Your task to perform on an android device: Check the news Image 0: 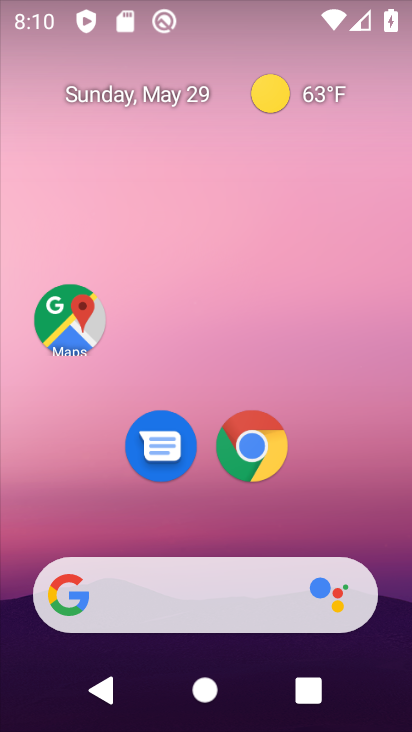
Step 0: drag from (221, 520) to (213, 101)
Your task to perform on an android device: Check the news Image 1: 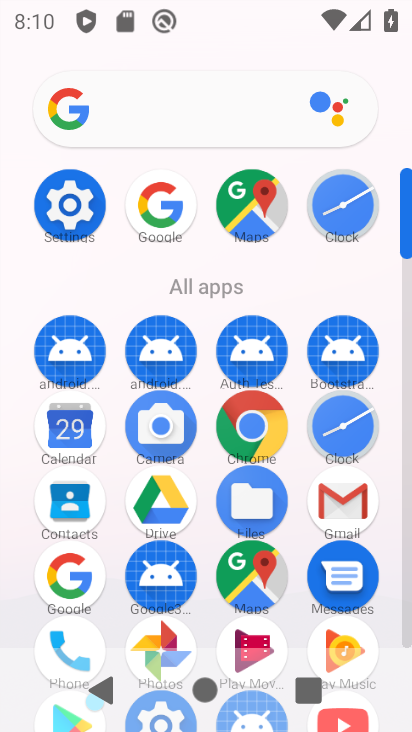
Step 1: click (169, 220)
Your task to perform on an android device: Check the news Image 2: 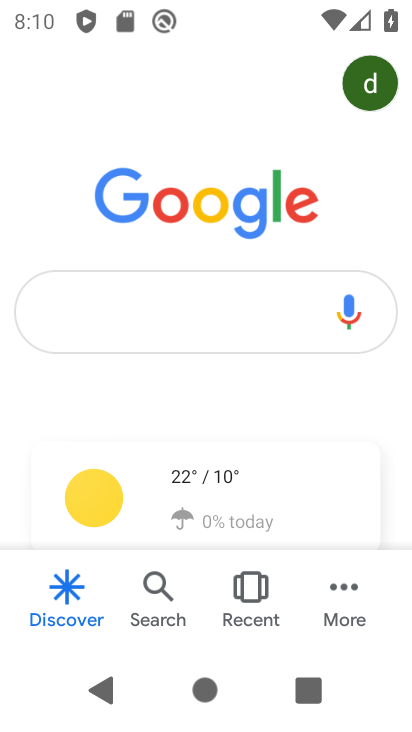
Step 2: click (141, 323)
Your task to perform on an android device: Check the news Image 3: 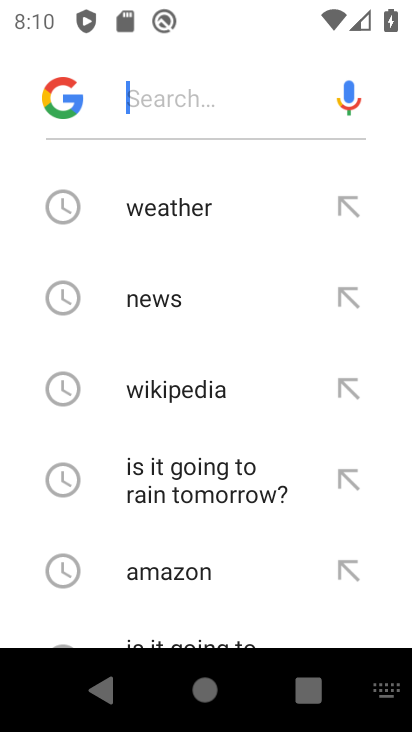
Step 3: click (144, 306)
Your task to perform on an android device: Check the news Image 4: 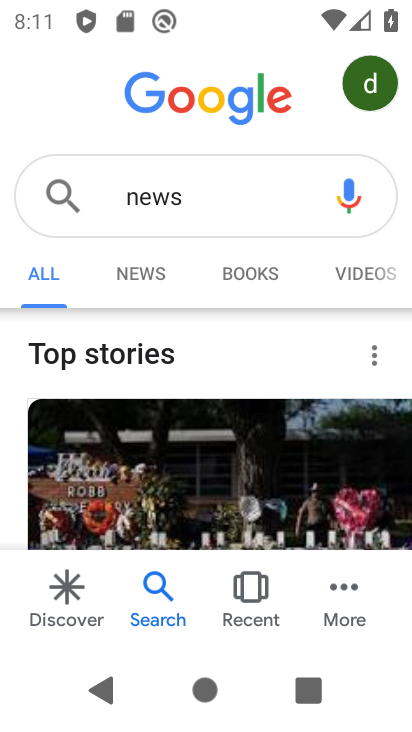
Step 4: drag from (157, 488) to (176, 435)
Your task to perform on an android device: Check the news Image 5: 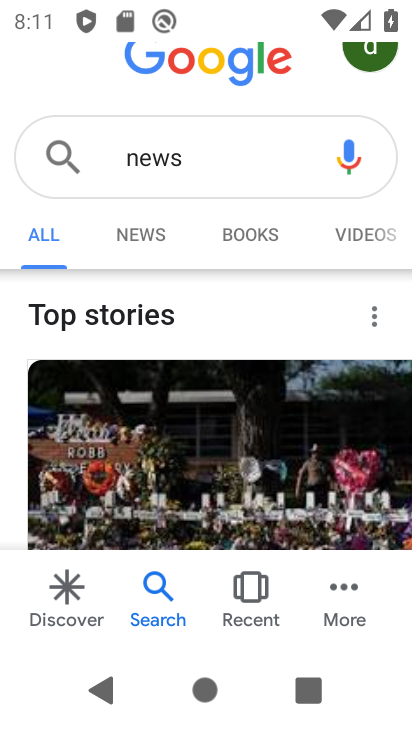
Step 5: click (145, 236)
Your task to perform on an android device: Check the news Image 6: 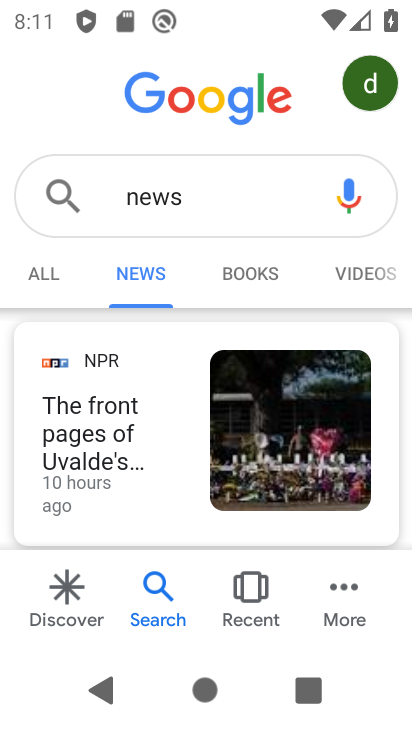
Step 6: task complete